Your task to perform on an android device: Open network settings Image 0: 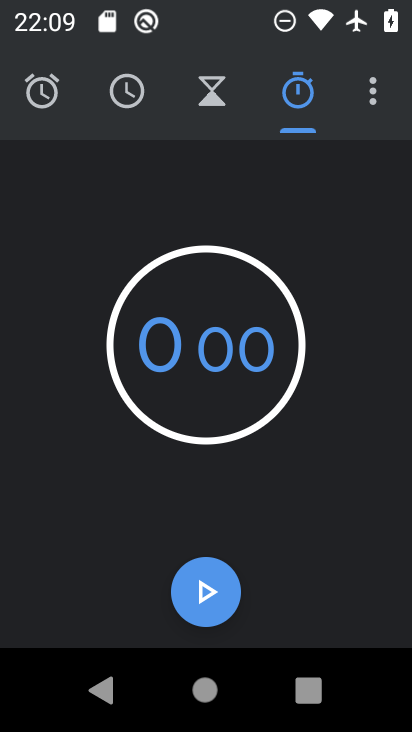
Step 0: press home button
Your task to perform on an android device: Open network settings Image 1: 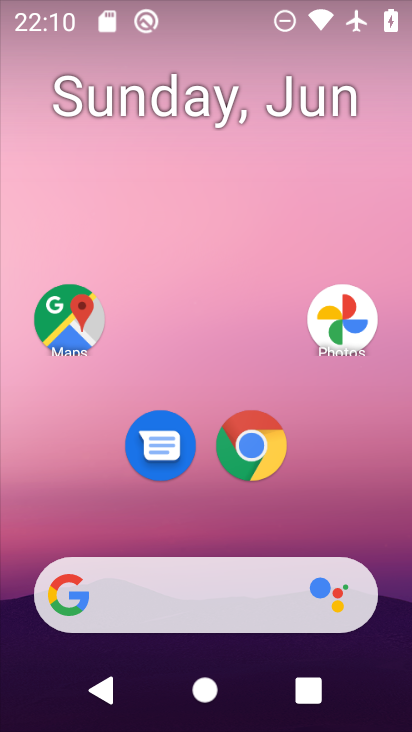
Step 1: drag from (237, 544) to (180, 156)
Your task to perform on an android device: Open network settings Image 2: 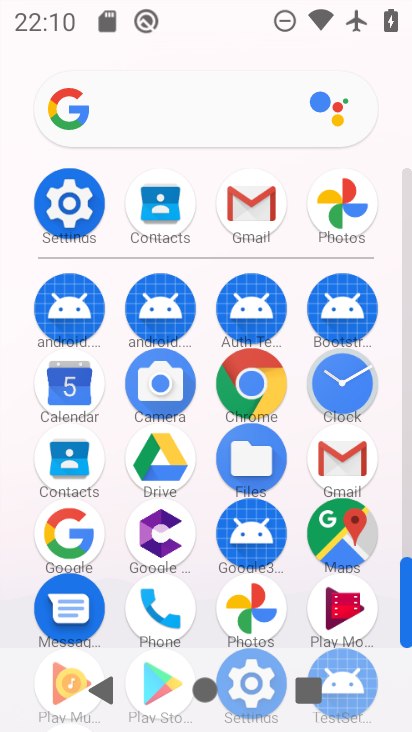
Step 2: click (64, 203)
Your task to perform on an android device: Open network settings Image 3: 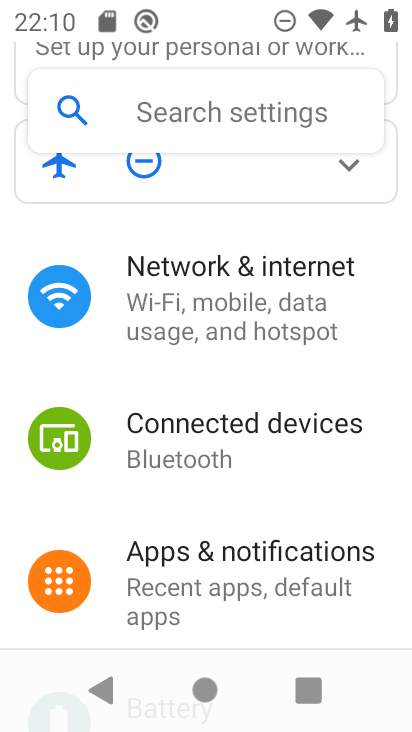
Step 3: click (214, 279)
Your task to perform on an android device: Open network settings Image 4: 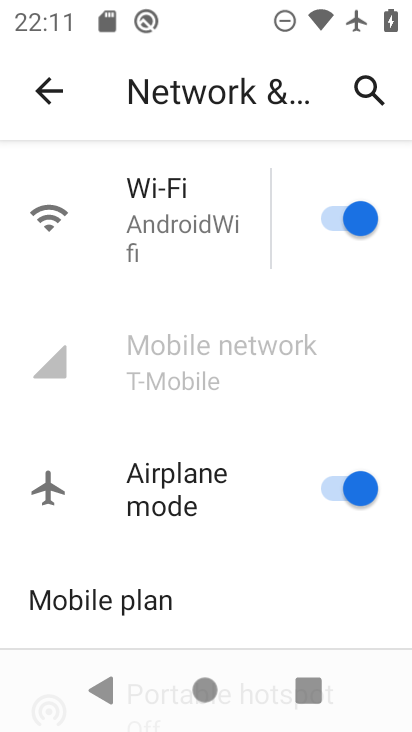
Step 4: task complete